Your task to perform on an android device: What is the recent news? Image 0: 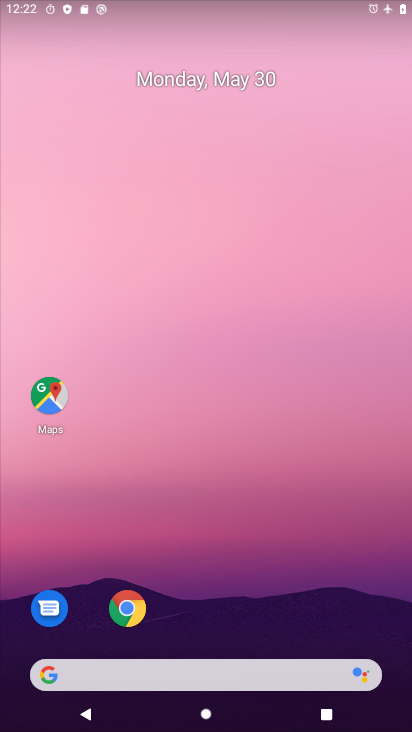
Step 0: click (184, 662)
Your task to perform on an android device: What is the recent news? Image 1: 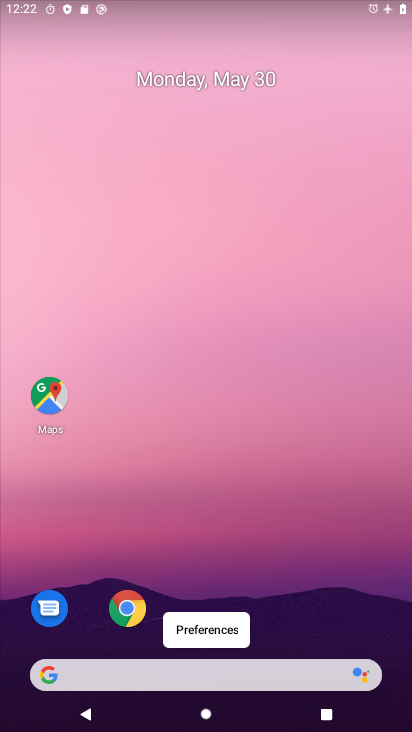
Step 1: click (269, 670)
Your task to perform on an android device: What is the recent news? Image 2: 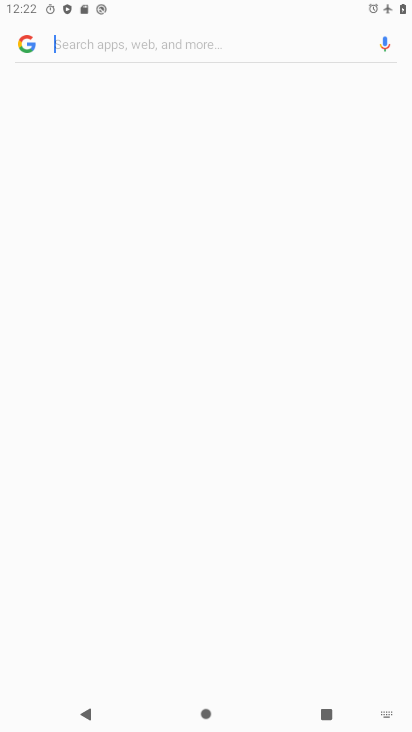
Step 2: task complete